Your task to perform on an android device: Go to network settings Image 0: 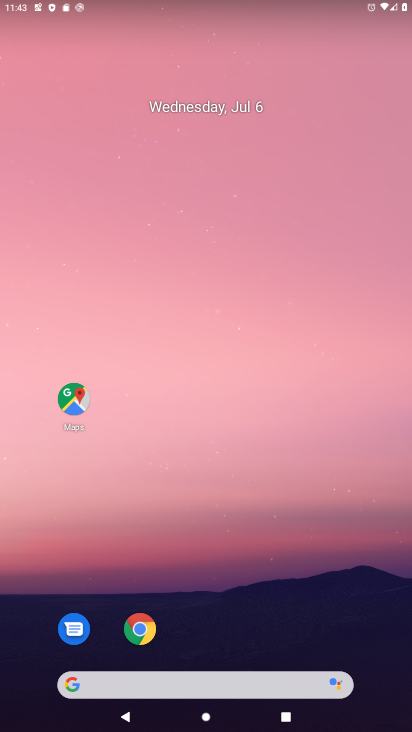
Step 0: drag from (251, 628) to (265, 9)
Your task to perform on an android device: Go to network settings Image 1: 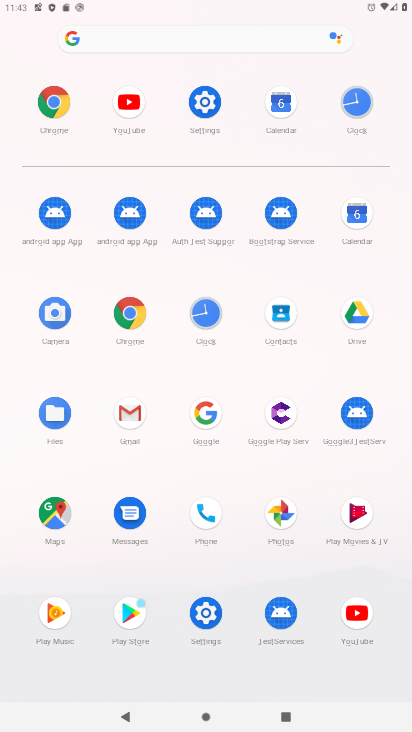
Step 1: click (202, 109)
Your task to perform on an android device: Go to network settings Image 2: 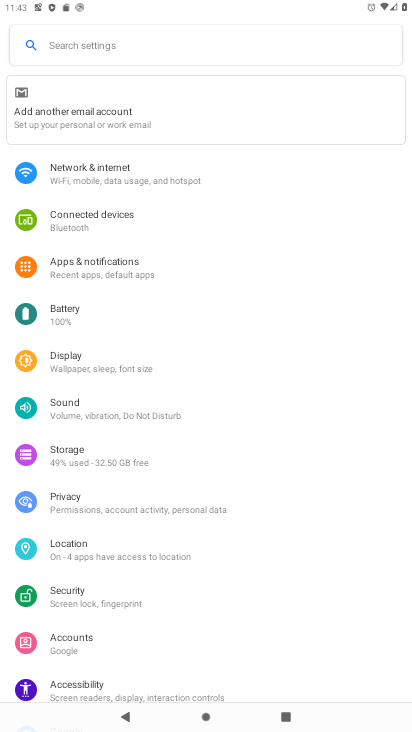
Step 2: click (117, 182)
Your task to perform on an android device: Go to network settings Image 3: 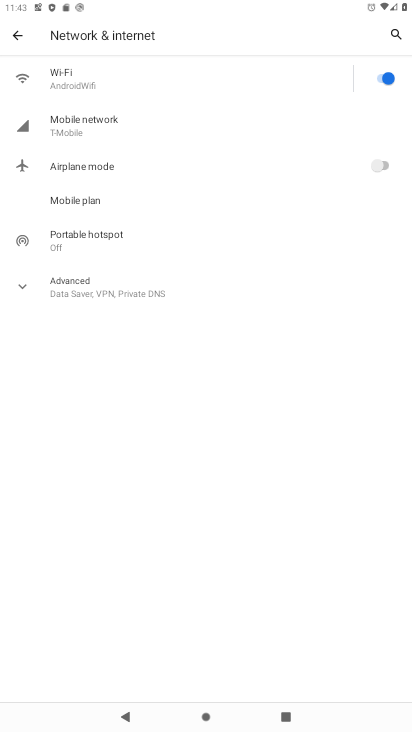
Step 3: task complete